Your task to perform on an android device: Go to Google maps Image 0: 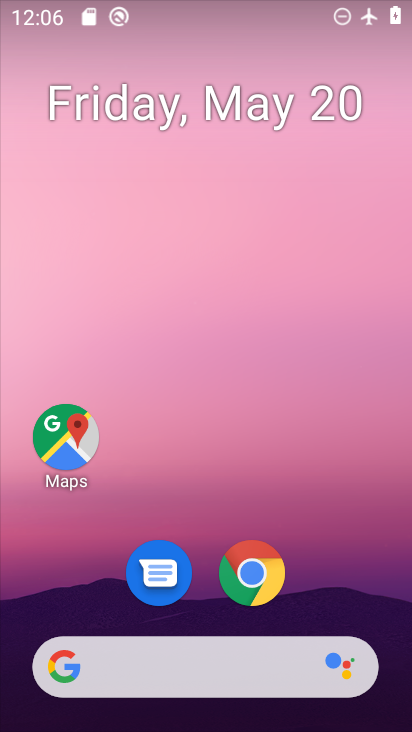
Step 0: drag from (229, 726) to (186, 147)
Your task to perform on an android device: Go to Google maps Image 1: 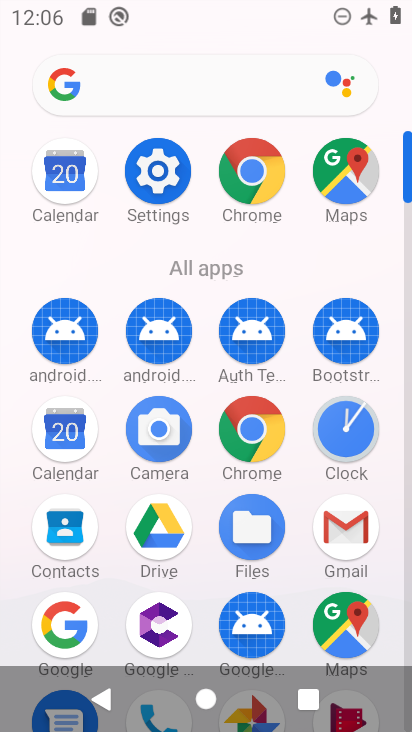
Step 1: click (349, 616)
Your task to perform on an android device: Go to Google maps Image 2: 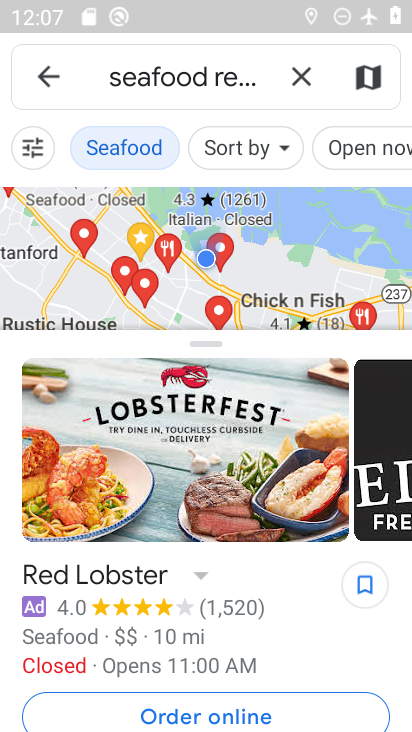
Step 2: task complete